Your task to perform on an android device: Open privacy settings Image 0: 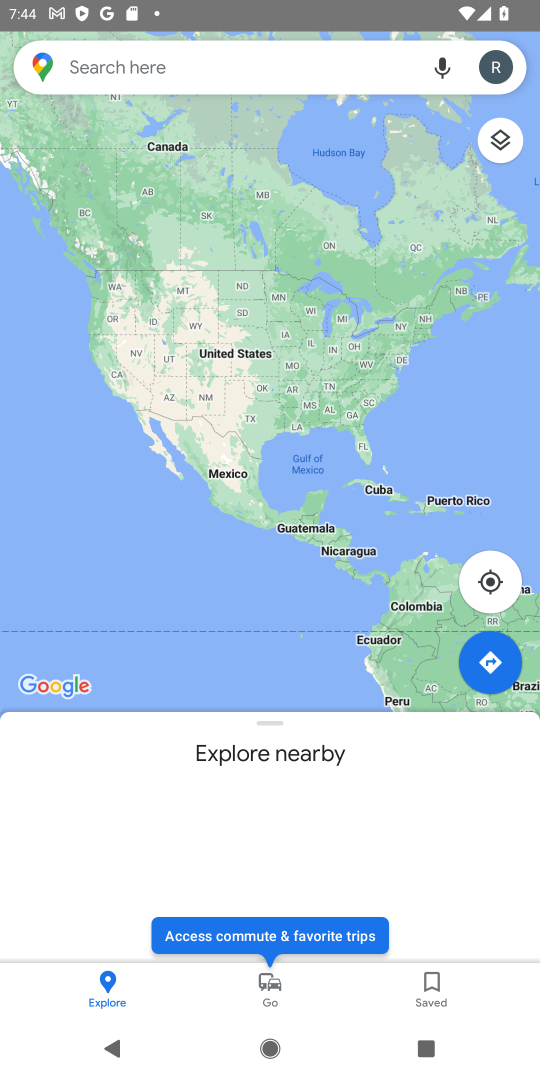
Step 0: press home button
Your task to perform on an android device: Open privacy settings Image 1: 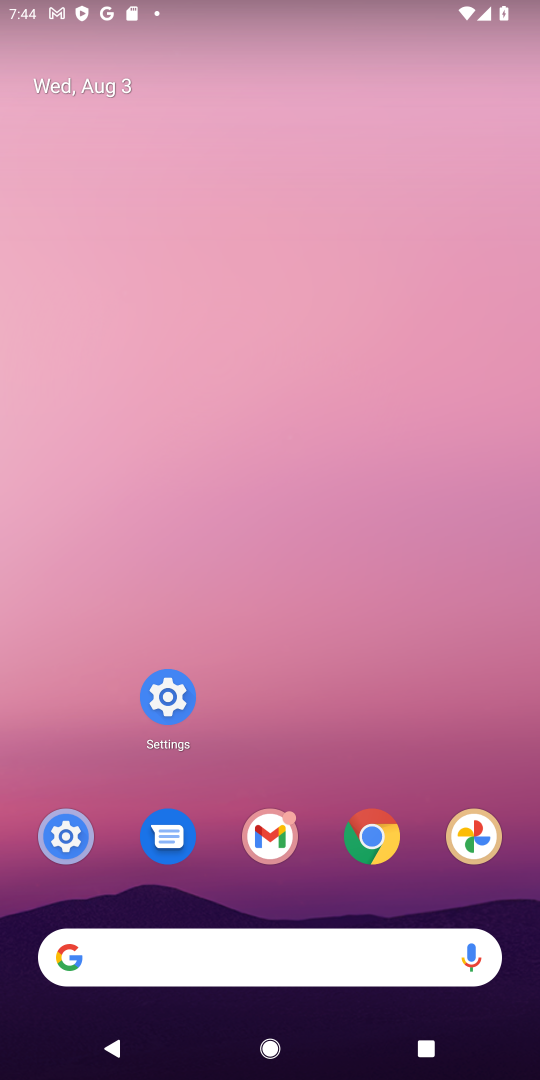
Step 1: click (180, 690)
Your task to perform on an android device: Open privacy settings Image 2: 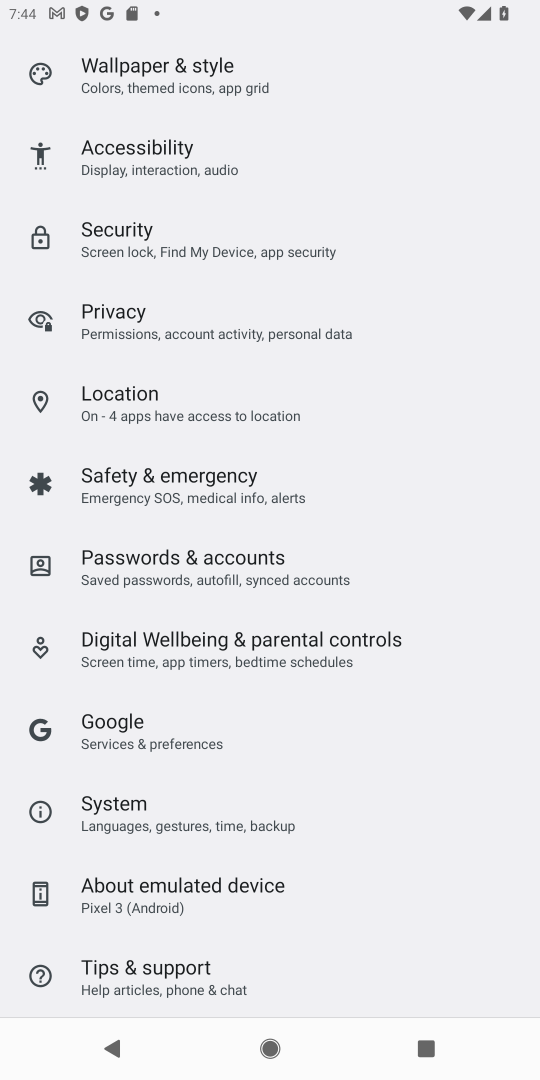
Step 2: click (124, 315)
Your task to perform on an android device: Open privacy settings Image 3: 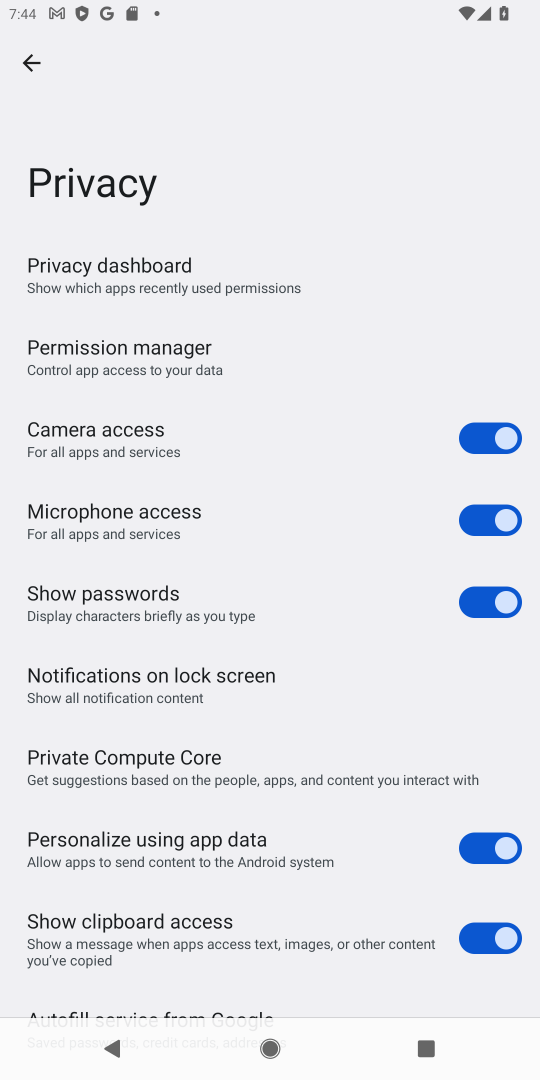
Step 3: task complete